Your task to perform on an android device: Search for sony triple a on walmart.com, select the first entry, add it to the cart, then select checkout. Image 0: 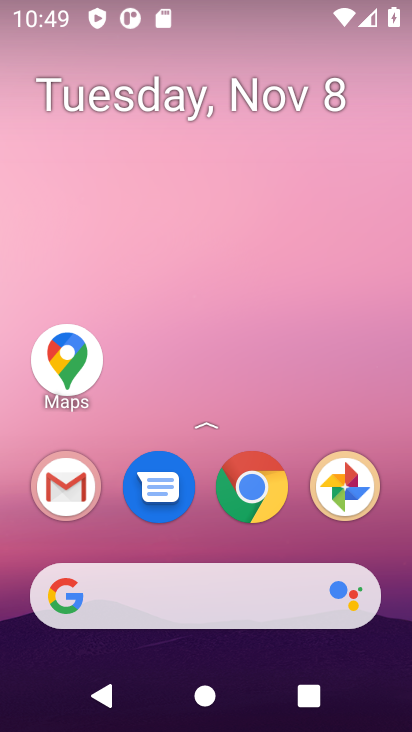
Step 0: click (172, 595)
Your task to perform on an android device: Search for sony triple a on walmart.com, select the first entry, add it to the cart, then select checkout. Image 1: 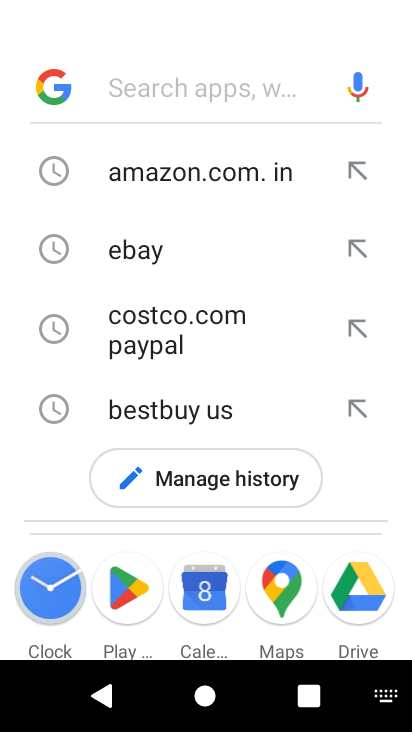
Step 1: type "walmart.com"
Your task to perform on an android device: Search for sony triple a on walmart.com, select the first entry, add it to the cart, then select checkout. Image 2: 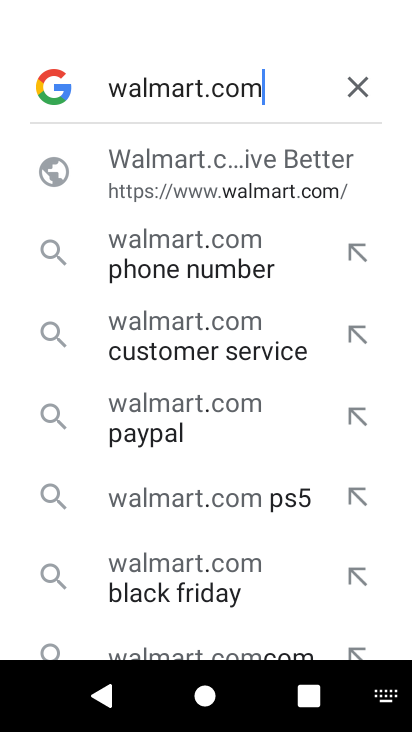
Step 2: click (262, 195)
Your task to perform on an android device: Search for sony triple a on walmart.com, select the first entry, add it to the cart, then select checkout. Image 3: 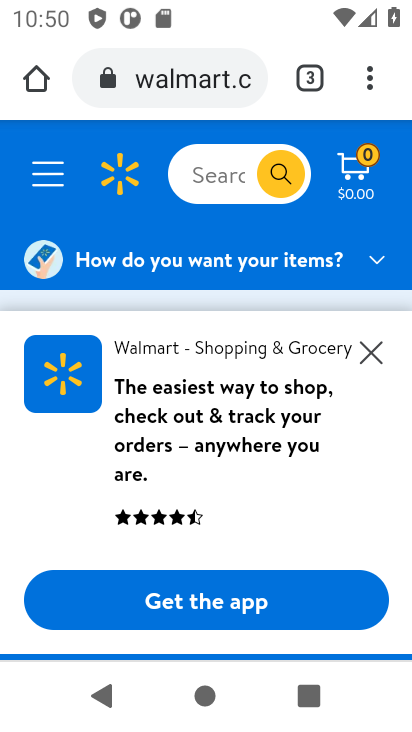
Step 3: click (228, 157)
Your task to perform on an android device: Search for sony triple a on walmart.com, select the first entry, add it to the cart, then select checkout. Image 4: 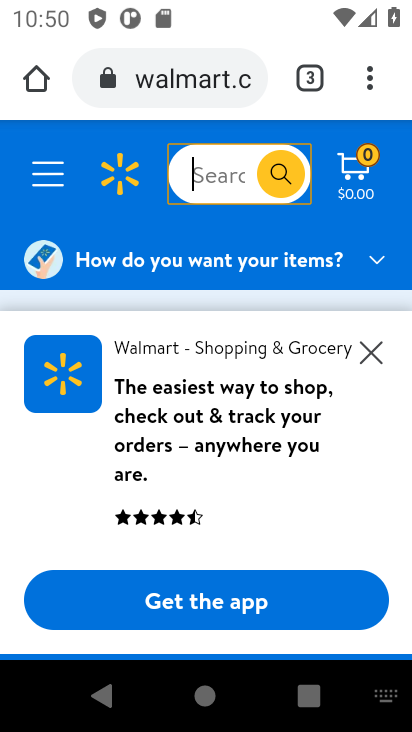
Step 4: click (373, 337)
Your task to perform on an android device: Search for sony triple a on walmart.com, select the first entry, add it to the cart, then select checkout. Image 5: 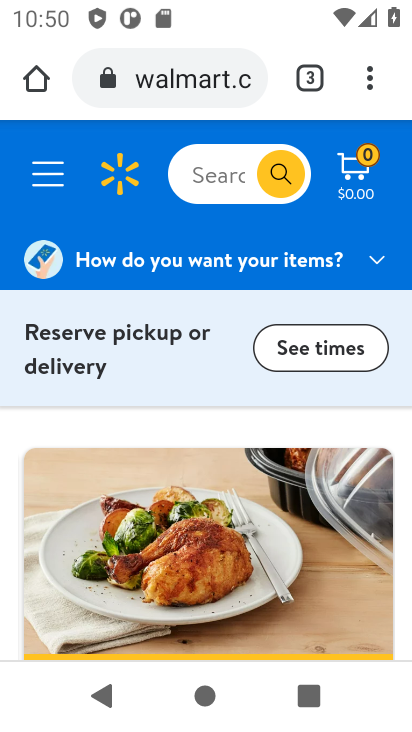
Step 5: click (198, 172)
Your task to perform on an android device: Search for sony triple a on walmart.com, select the first entry, add it to the cart, then select checkout. Image 6: 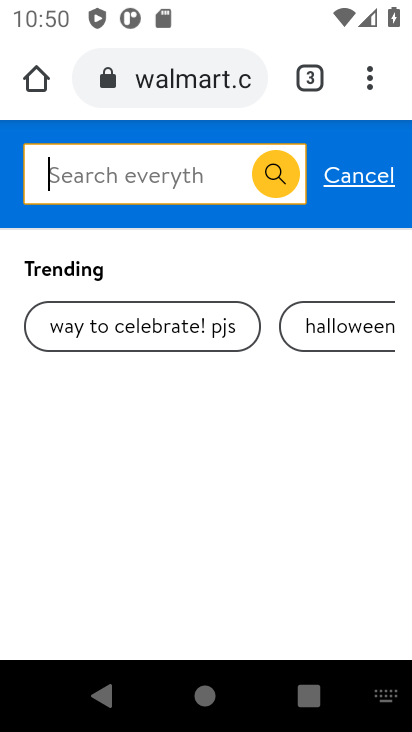
Step 6: type "sony triple a "
Your task to perform on an android device: Search for sony triple a on walmart.com, select the first entry, add it to the cart, then select checkout. Image 7: 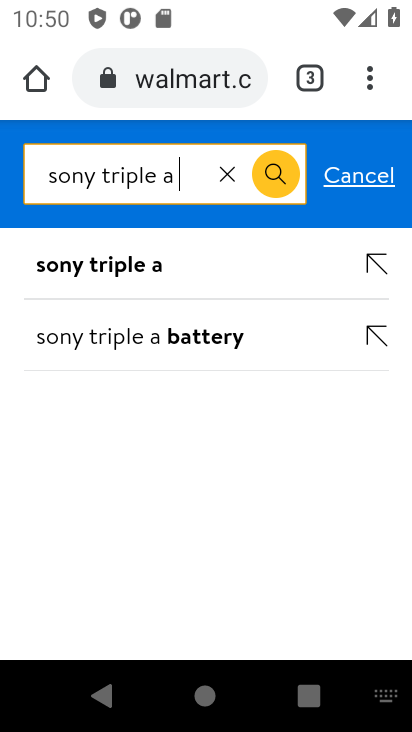
Step 7: click (114, 263)
Your task to perform on an android device: Search for sony triple a on walmart.com, select the first entry, add it to the cart, then select checkout. Image 8: 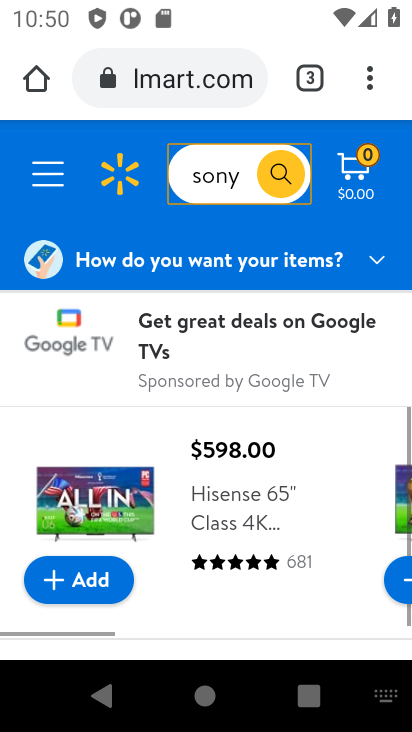
Step 8: click (78, 574)
Your task to perform on an android device: Search for sony triple a on walmart.com, select the first entry, add it to the cart, then select checkout. Image 9: 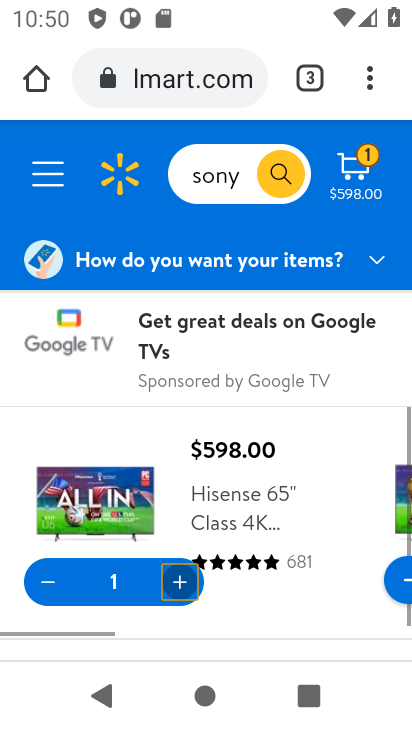
Step 9: click (359, 174)
Your task to perform on an android device: Search for sony triple a on walmart.com, select the first entry, add it to the cart, then select checkout. Image 10: 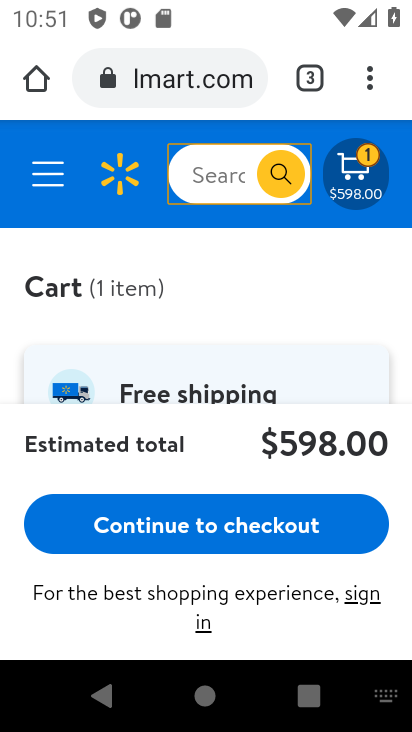
Step 10: click (190, 530)
Your task to perform on an android device: Search for sony triple a on walmart.com, select the first entry, add it to the cart, then select checkout. Image 11: 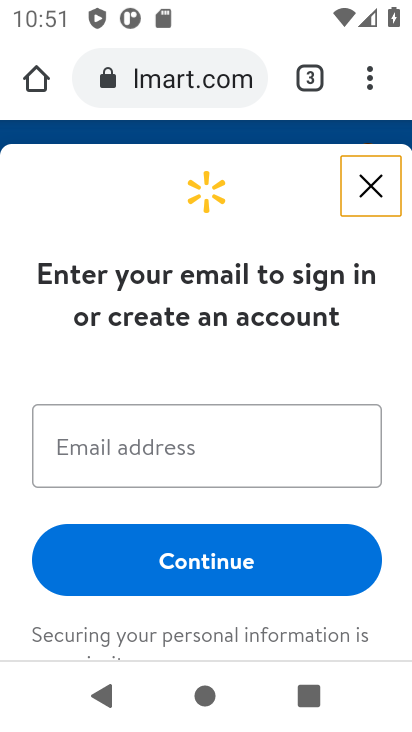
Step 11: task complete